Your task to perform on an android device: toggle location history Image 0: 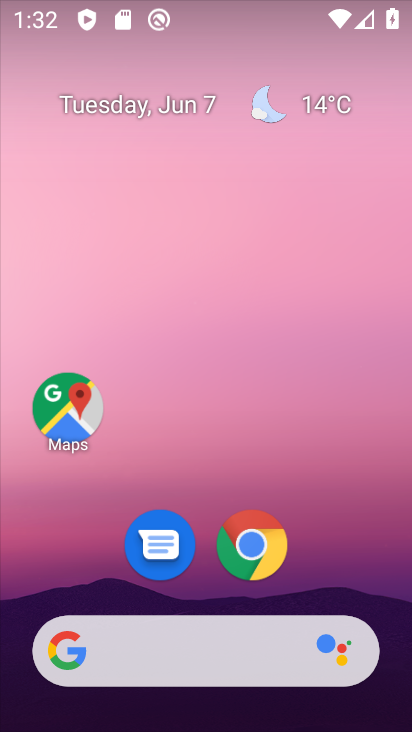
Step 0: drag from (311, 240) to (239, 39)
Your task to perform on an android device: toggle location history Image 1: 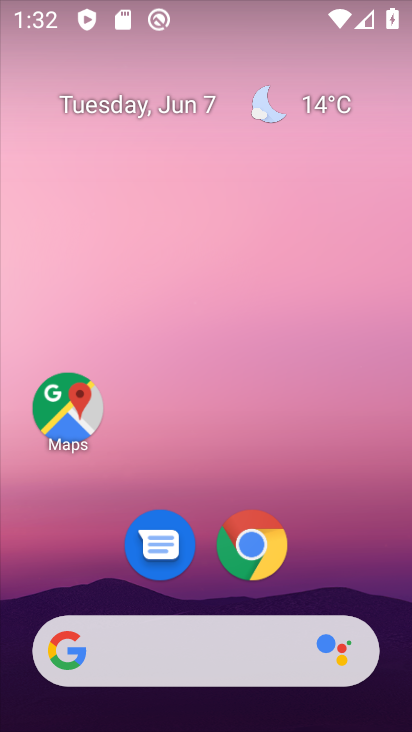
Step 1: drag from (318, 500) to (232, 0)
Your task to perform on an android device: toggle location history Image 2: 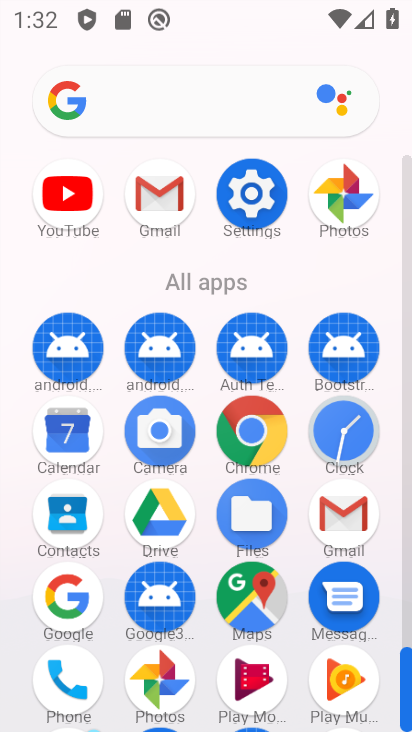
Step 2: click (253, 179)
Your task to perform on an android device: toggle location history Image 3: 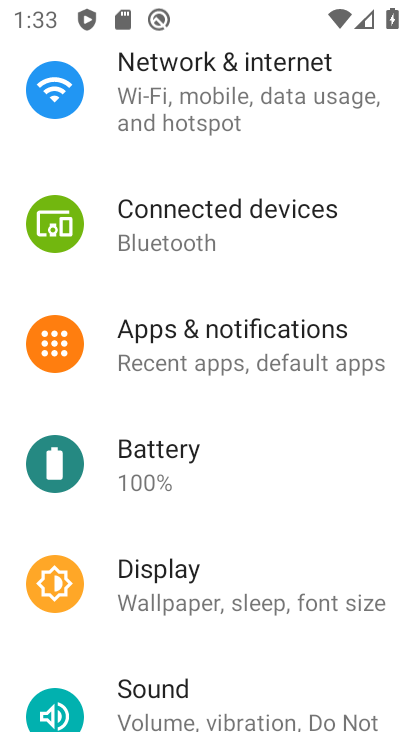
Step 3: drag from (306, 629) to (294, 58)
Your task to perform on an android device: toggle location history Image 4: 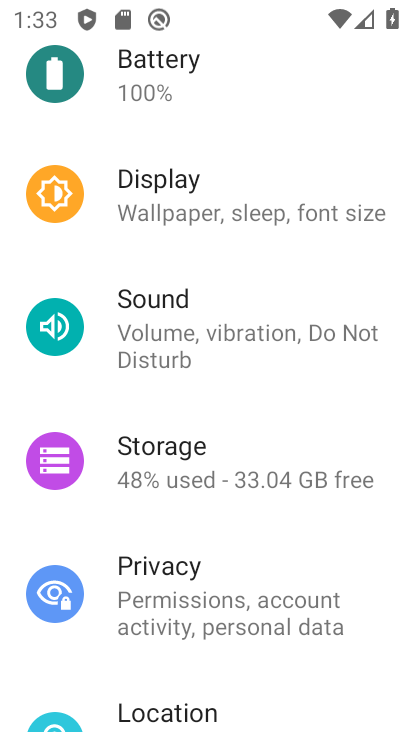
Step 4: click (244, 706)
Your task to perform on an android device: toggle location history Image 5: 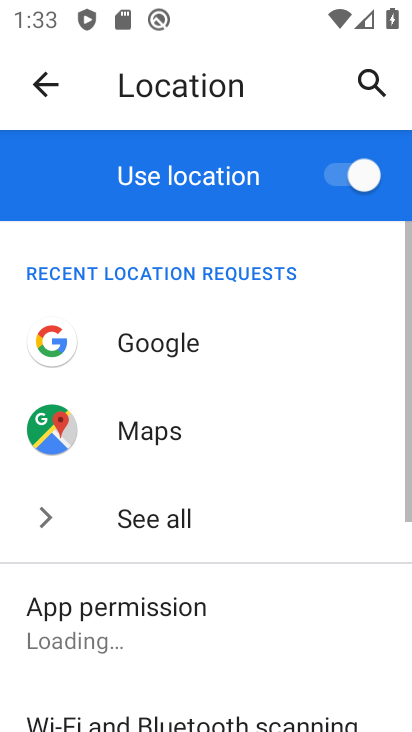
Step 5: drag from (236, 644) to (291, 84)
Your task to perform on an android device: toggle location history Image 6: 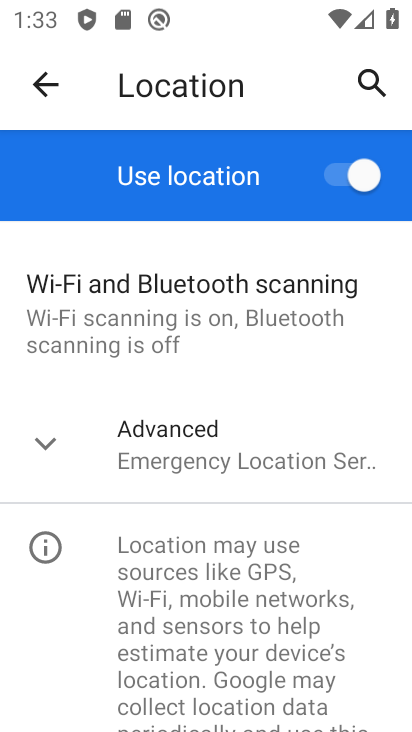
Step 6: click (199, 438)
Your task to perform on an android device: toggle location history Image 7: 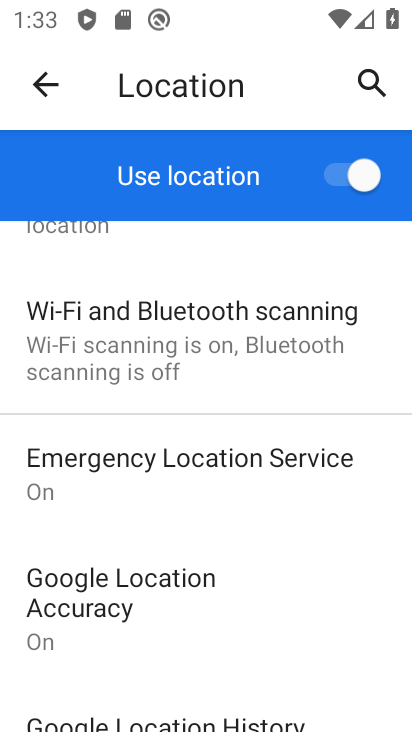
Step 7: drag from (241, 624) to (236, 262)
Your task to perform on an android device: toggle location history Image 8: 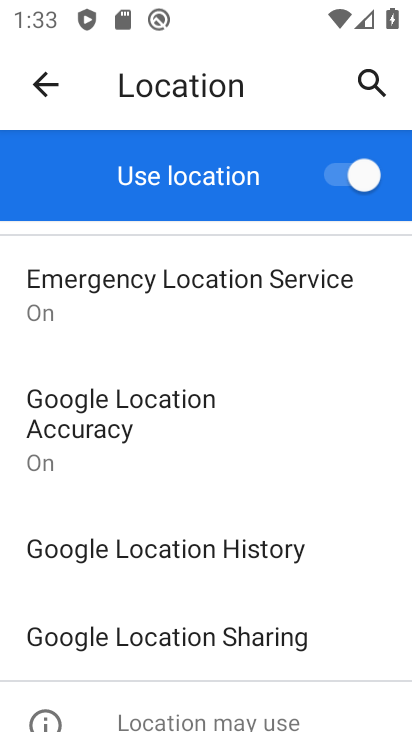
Step 8: click (253, 541)
Your task to perform on an android device: toggle location history Image 9: 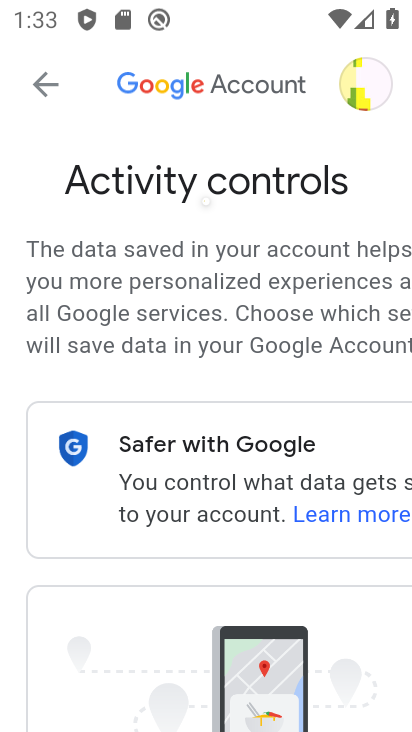
Step 9: drag from (159, 620) to (241, 115)
Your task to perform on an android device: toggle location history Image 10: 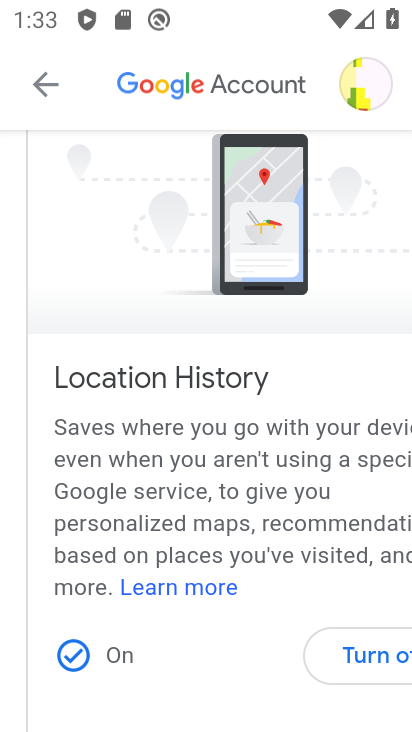
Step 10: drag from (233, 521) to (229, 276)
Your task to perform on an android device: toggle location history Image 11: 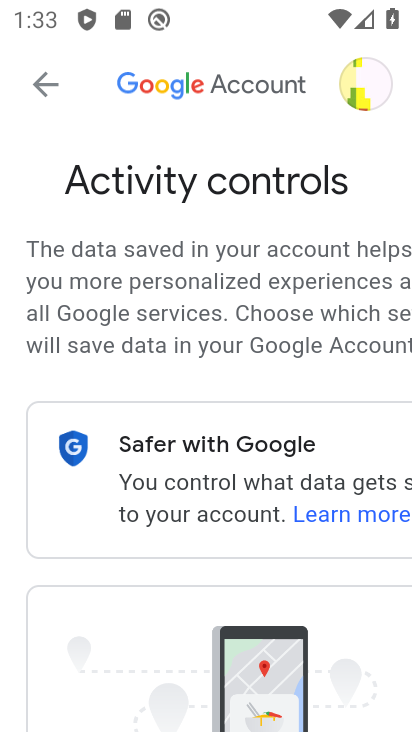
Step 11: drag from (287, 618) to (298, 186)
Your task to perform on an android device: toggle location history Image 12: 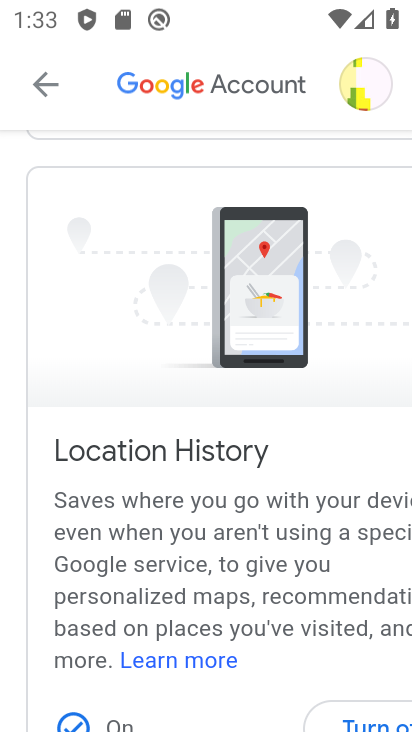
Step 12: click (353, 716)
Your task to perform on an android device: toggle location history Image 13: 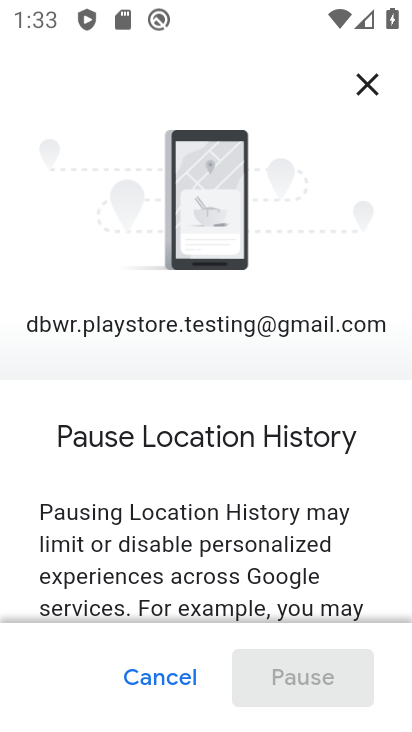
Step 13: drag from (292, 574) to (331, 76)
Your task to perform on an android device: toggle location history Image 14: 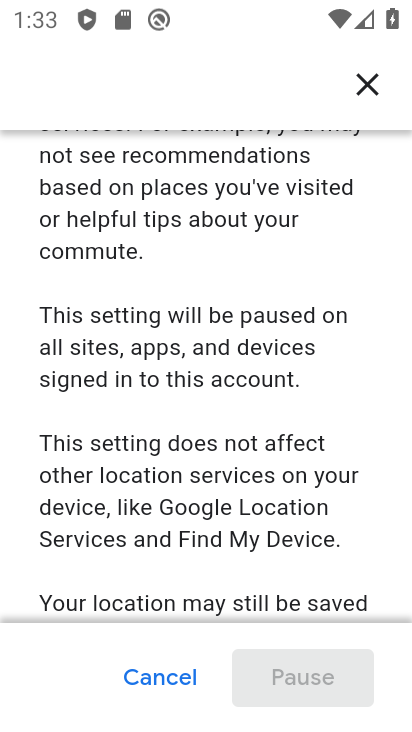
Step 14: drag from (277, 566) to (251, 41)
Your task to perform on an android device: toggle location history Image 15: 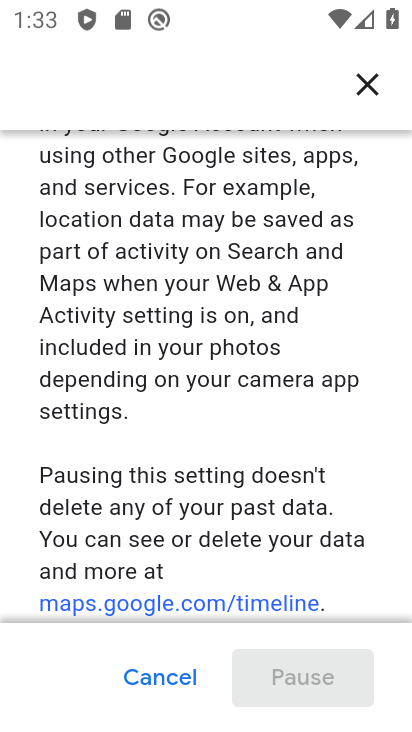
Step 15: drag from (311, 543) to (308, 90)
Your task to perform on an android device: toggle location history Image 16: 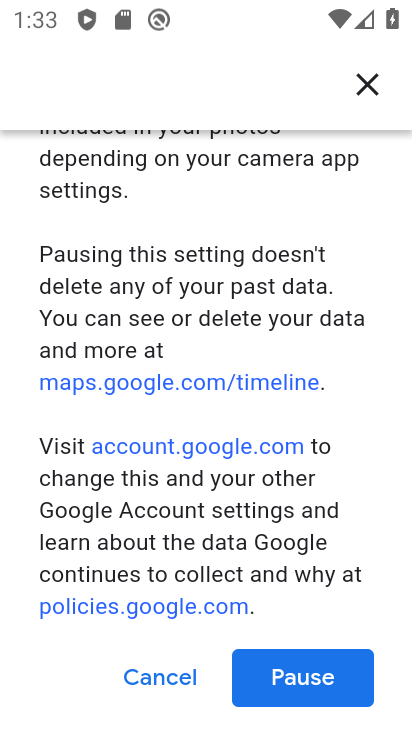
Step 16: click (315, 691)
Your task to perform on an android device: toggle location history Image 17: 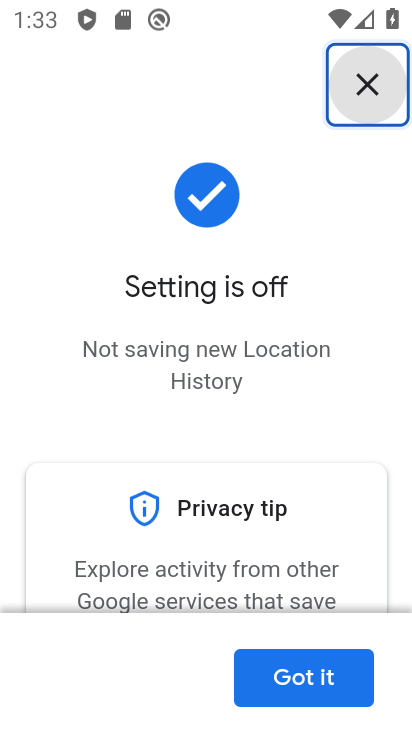
Step 17: click (318, 687)
Your task to perform on an android device: toggle location history Image 18: 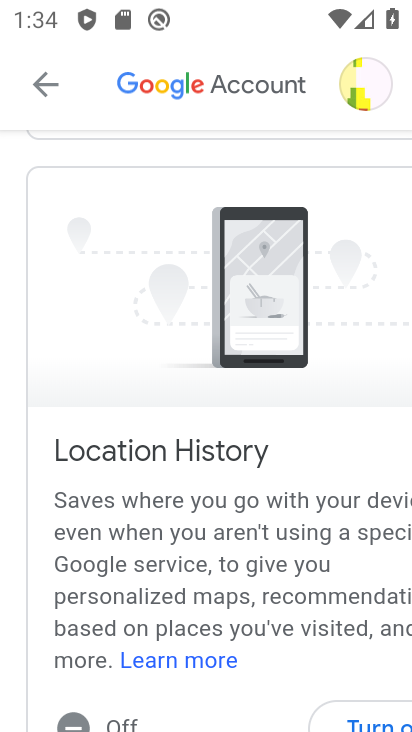
Step 18: task complete